Your task to perform on an android device: Open battery settings Image 0: 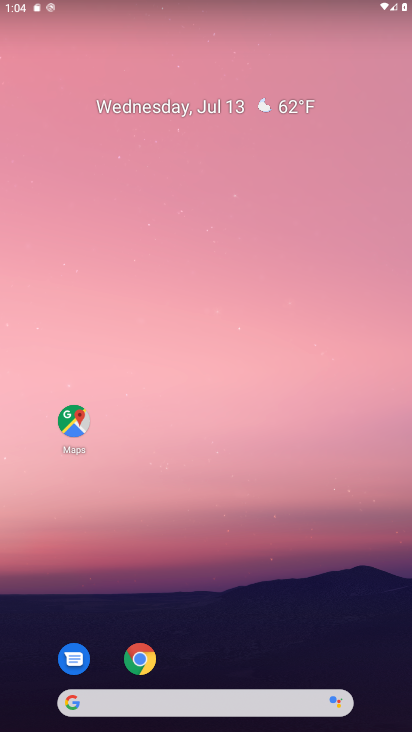
Step 0: drag from (227, 716) to (173, 60)
Your task to perform on an android device: Open battery settings Image 1: 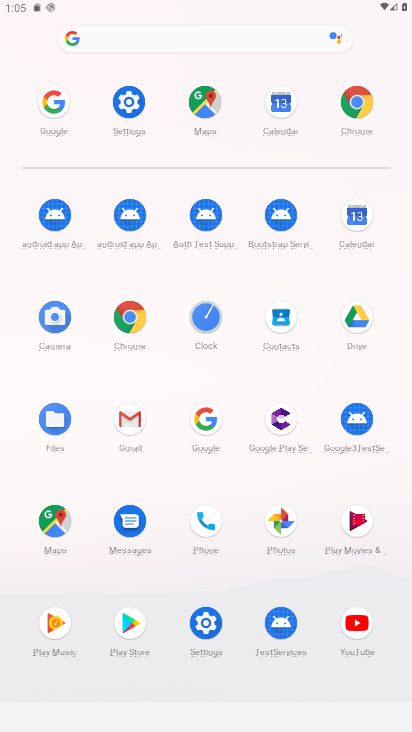
Step 1: click (209, 615)
Your task to perform on an android device: Open battery settings Image 2: 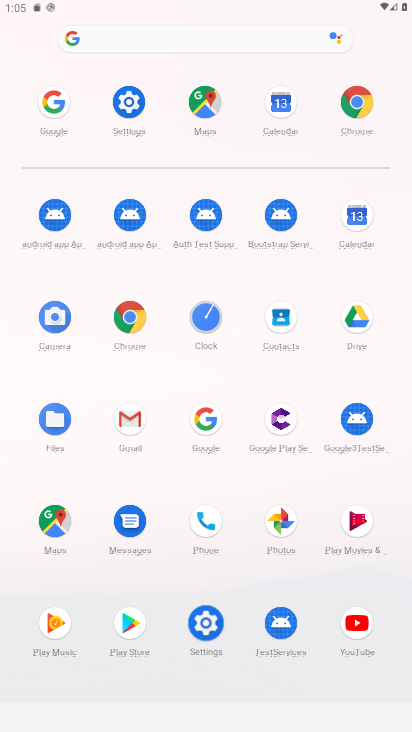
Step 2: click (210, 616)
Your task to perform on an android device: Open battery settings Image 3: 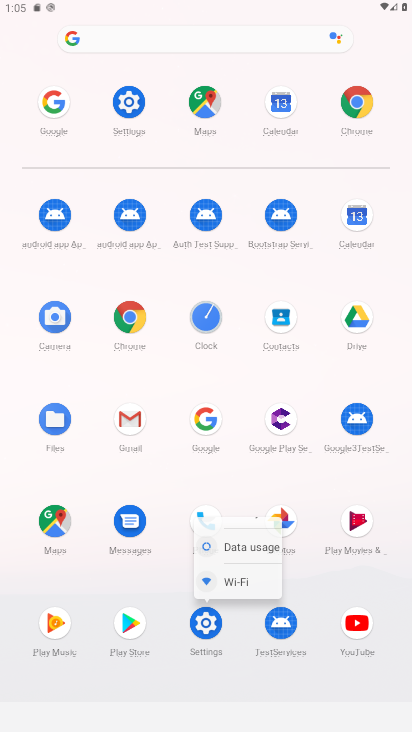
Step 3: click (210, 616)
Your task to perform on an android device: Open battery settings Image 4: 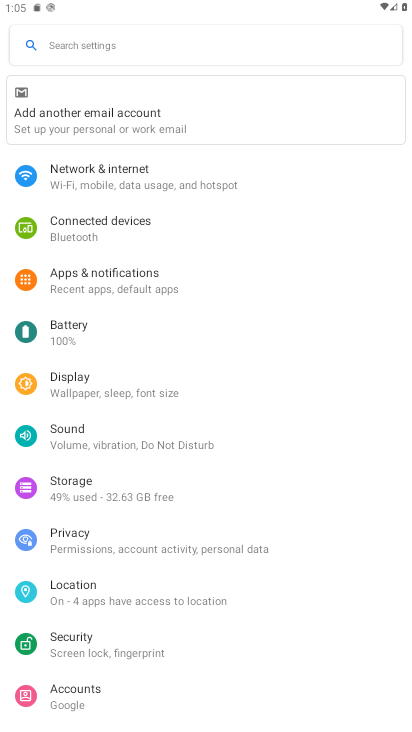
Step 4: click (63, 329)
Your task to perform on an android device: Open battery settings Image 5: 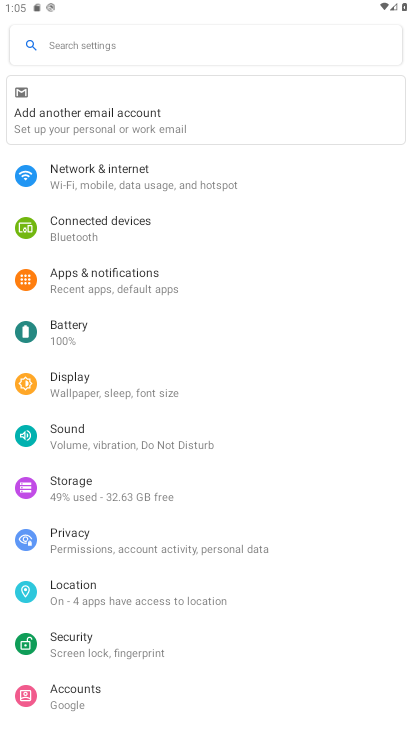
Step 5: click (62, 330)
Your task to perform on an android device: Open battery settings Image 6: 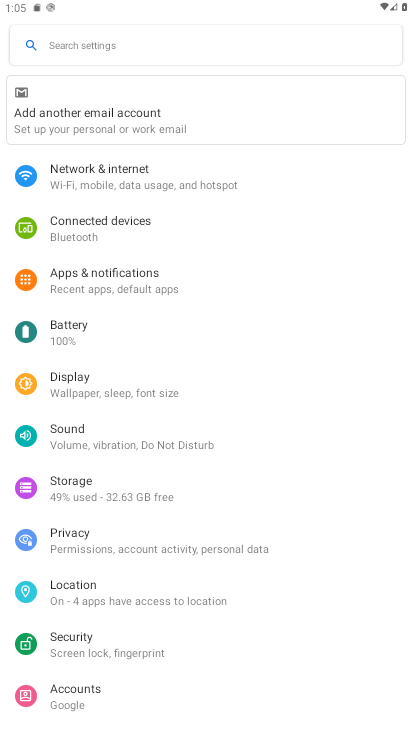
Step 6: click (62, 330)
Your task to perform on an android device: Open battery settings Image 7: 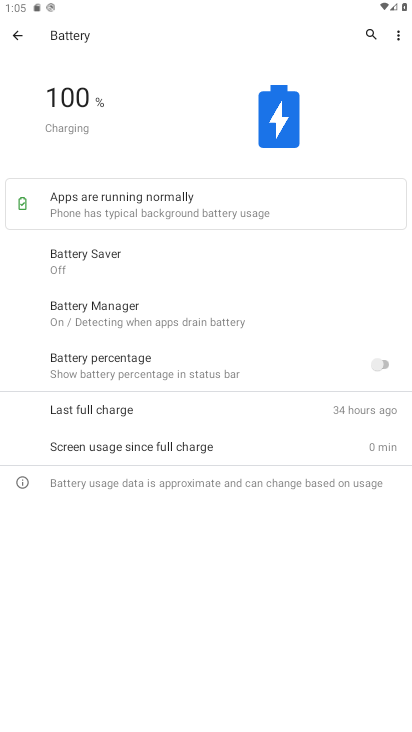
Step 7: click (17, 33)
Your task to perform on an android device: Open battery settings Image 8: 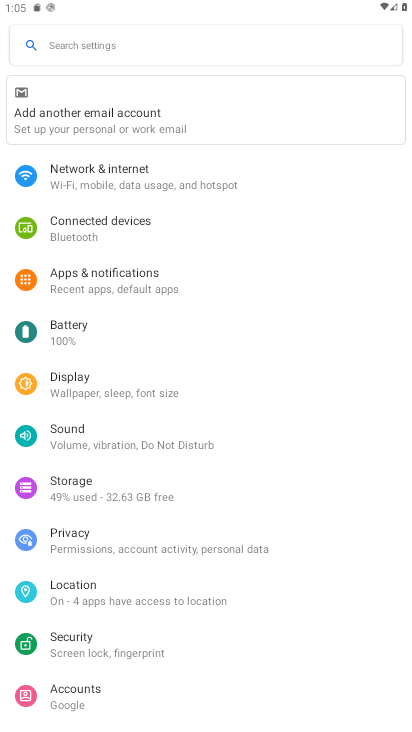
Step 8: task complete